Your task to perform on an android device: Do I have any events this weekend? Image 0: 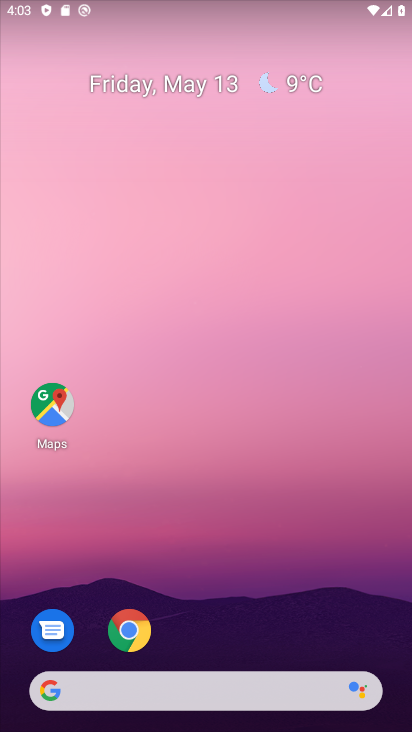
Step 0: drag from (249, 610) to (272, 0)
Your task to perform on an android device: Do I have any events this weekend? Image 1: 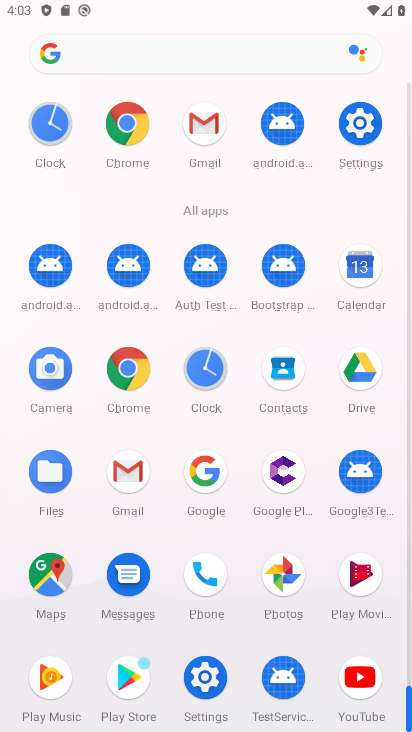
Step 1: click (126, 124)
Your task to perform on an android device: Do I have any events this weekend? Image 2: 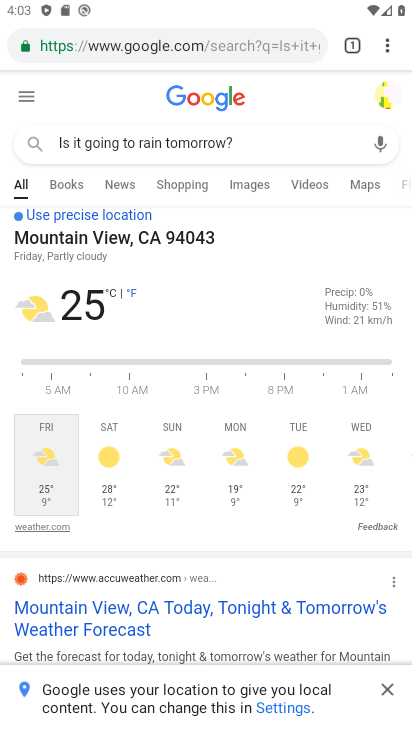
Step 2: click (196, 43)
Your task to perform on an android device: Do I have any events this weekend? Image 3: 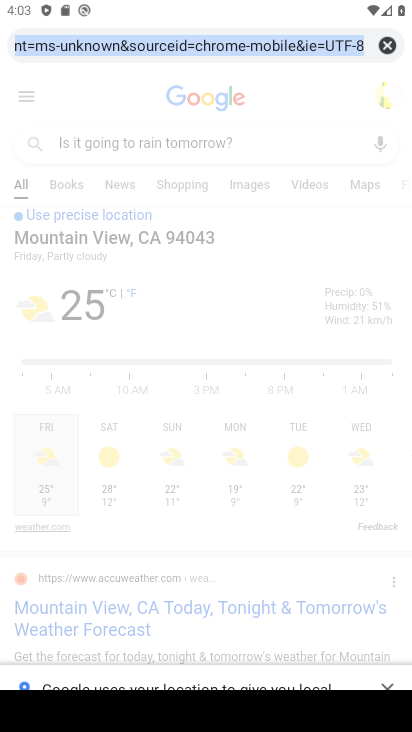
Step 3: click (387, 43)
Your task to perform on an android device: Do I have any events this weekend? Image 4: 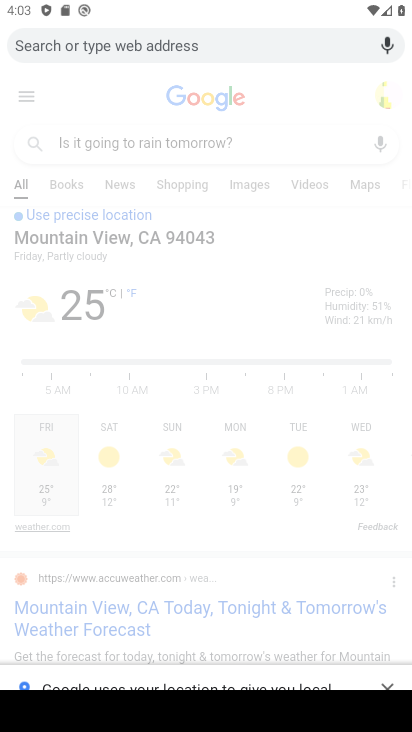
Step 4: type "Do I have any events this weekend?"
Your task to perform on an android device: Do I have any events this weekend? Image 5: 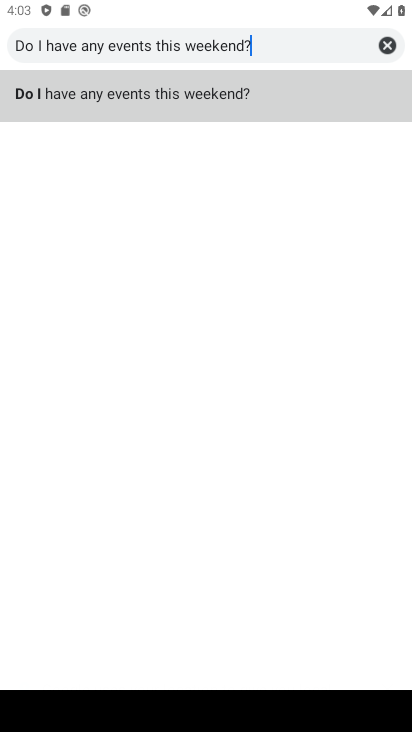
Step 5: click (205, 106)
Your task to perform on an android device: Do I have any events this weekend? Image 6: 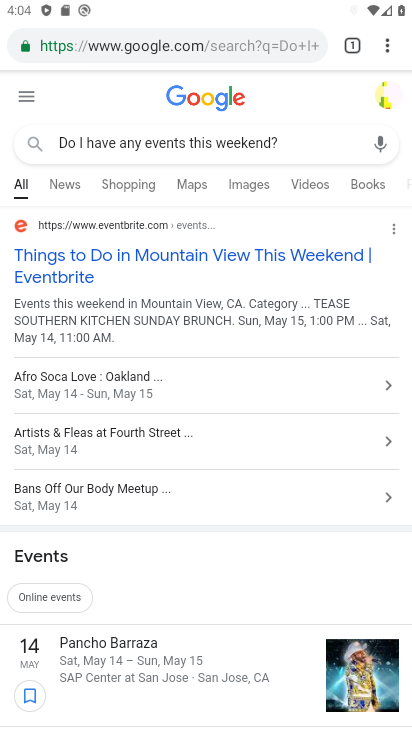
Step 6: click (69, 186)
Your task to perform on an android device: Do I have any events this weekend? Image 7: 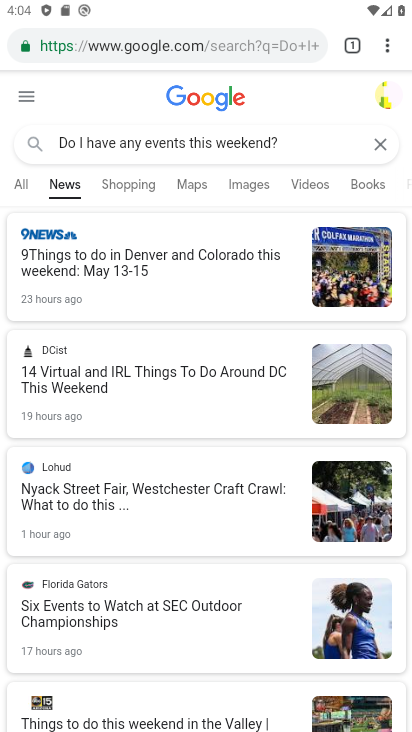
Step 7: task complete